Your task to perform on an android device: Search for "rayovac triple a" on walmart.com, select the first entry, add it to the cart, then select checkout. Image 0: 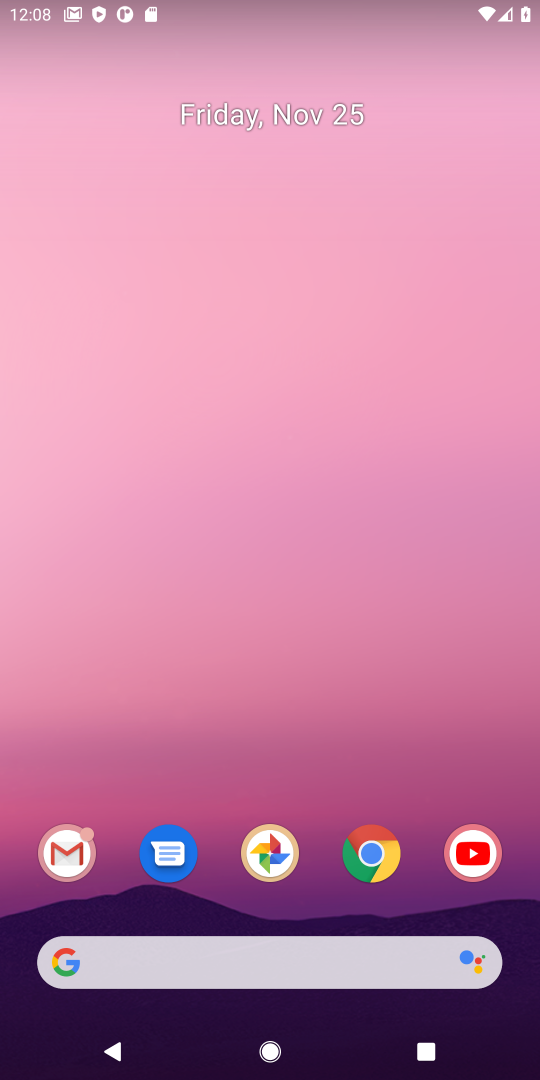
Step 0: click (206, 971)
Your task to perform on an android device: Search for "rayovac triple a" on walmart.com, select the first entry, add it to the cart, then select checkout. Image 1: 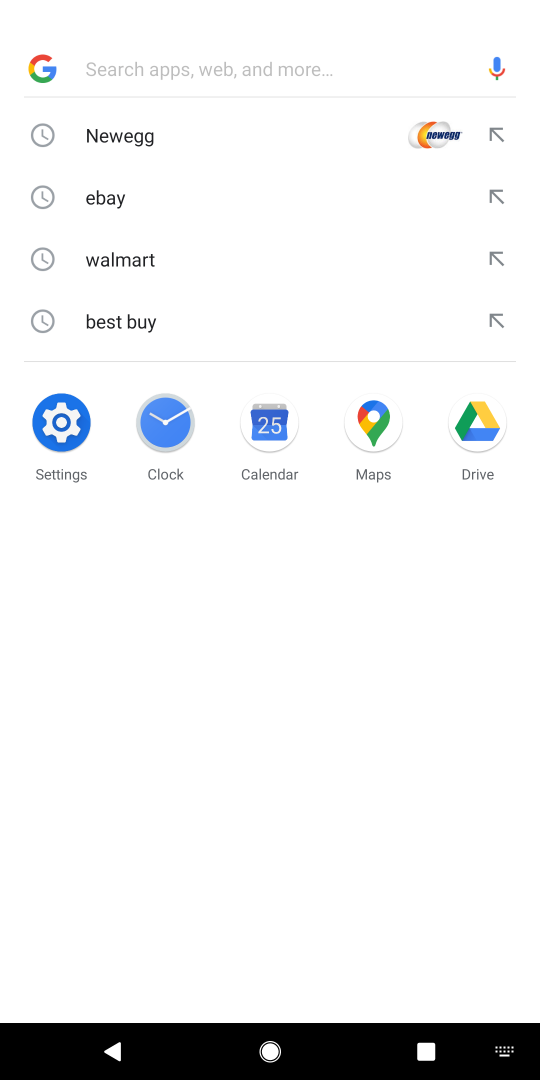
Step 1: type "walmart"
Your task to perform on an android device: Search for "rayovac triple a" on walmart.com, select the first entry, add it to the cart, then select checkout. Image 2: 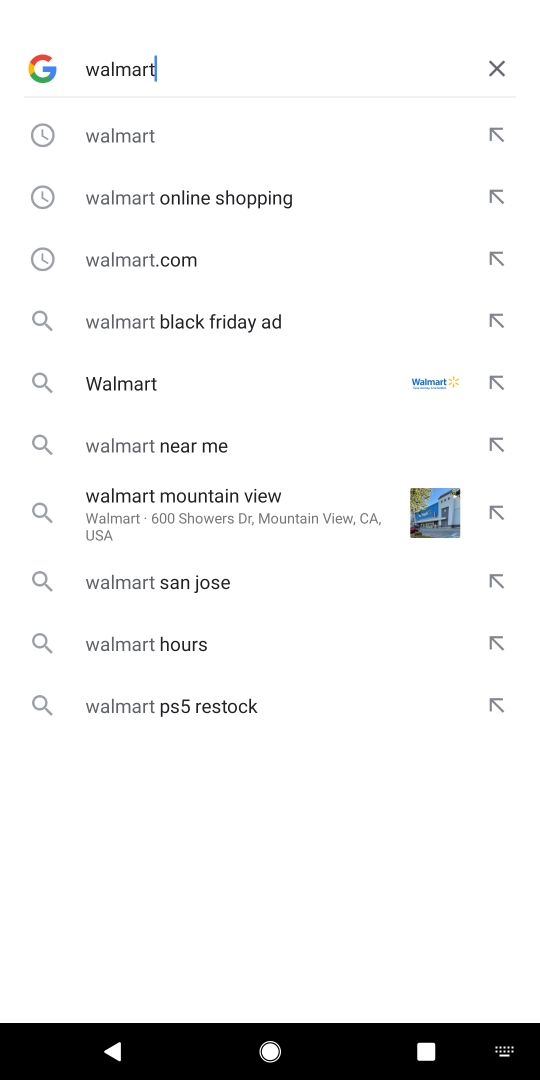
Step 2: click (167, 141)
Your task to perform on an android device: Search for "rayovac triple a" on walmart.com, select the first entry, add it to the cart, then select checkout. Image 3: 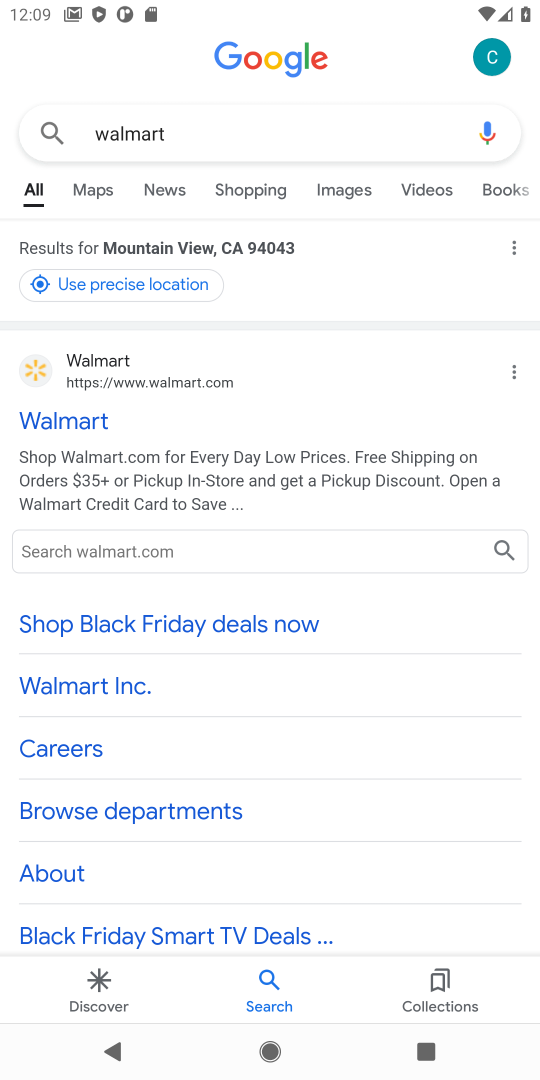
Step 3: click (58, 414)
Your task to perform on an android device: Search for "rayovac triple a" on walmart.com, select the first entry, add it to the cart, then select checkout. Image 4: 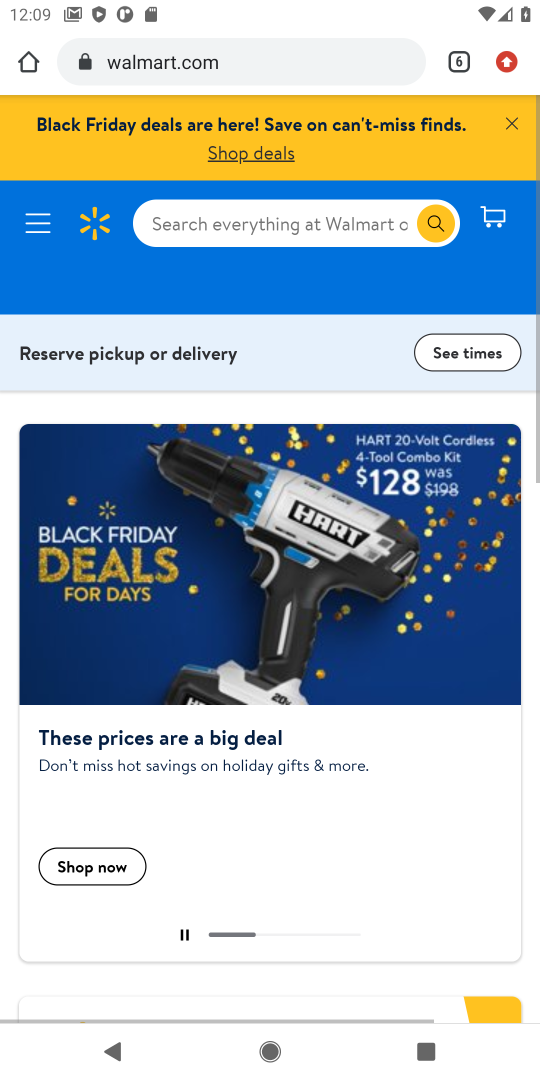
Step 4: click (512, 131)
Your task to perform on an android device: Search for "rayovac triple a" on walmart.com, select the first entry, add it to the cart, then select checkout. Image 5: 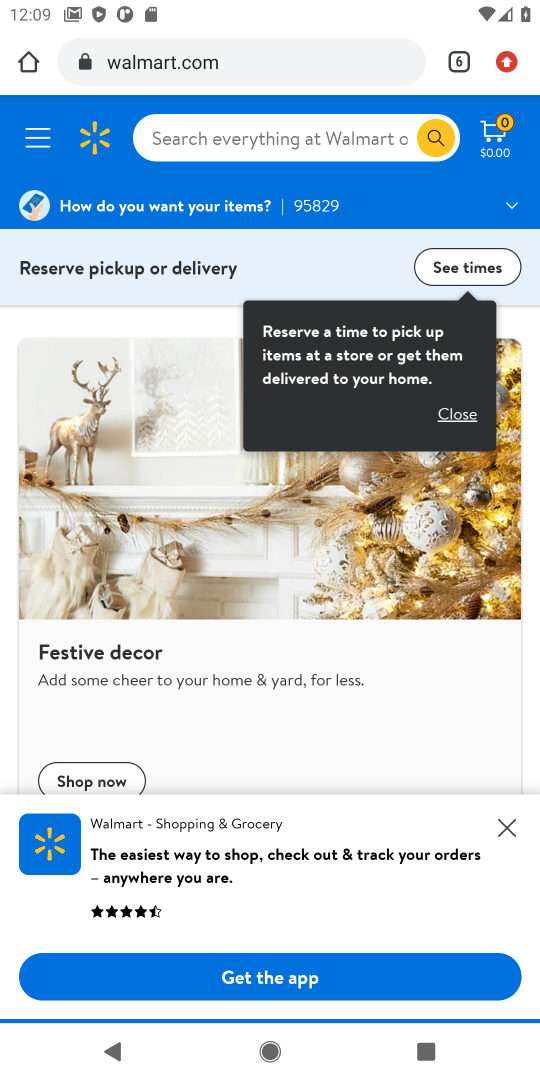
Step 5: click (199, 124)
Your task to perform on an android device: Search for "rayovac triple a" on walmart.com, select the first entry, add it to the cart, then select checkout. Image 6: 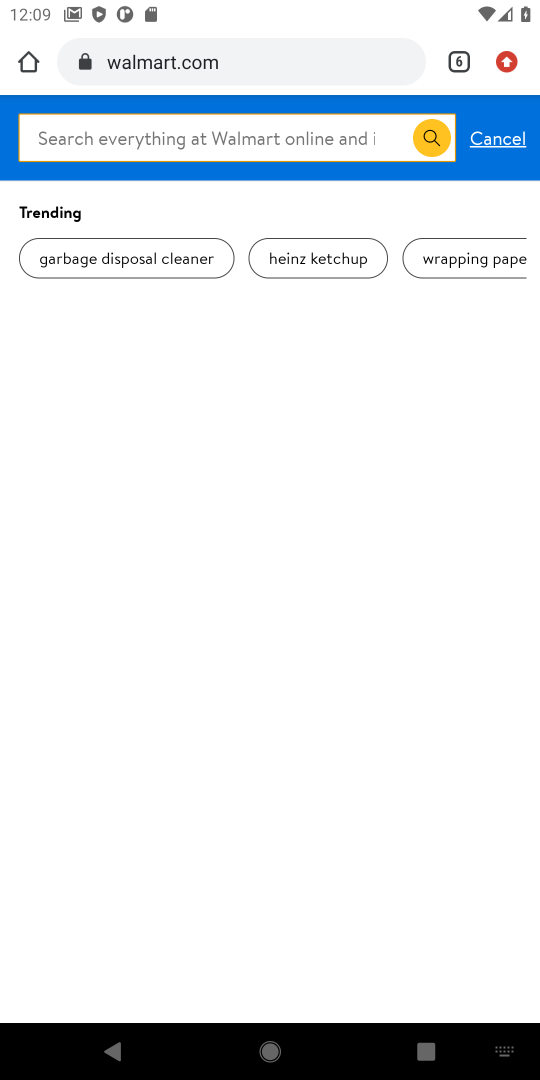
Step 6: type "rayovac triple a"
Your task to perform on an android device: Search for "rayovac triple a" on walmart.com, select the first entry, add it to the cart, then select checkout. Image 7: 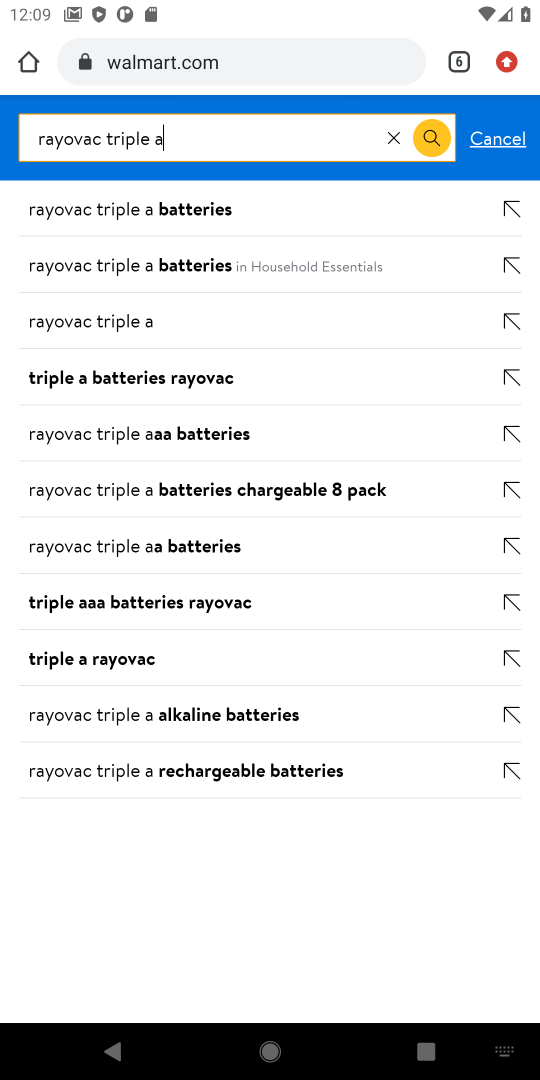
Step 7: click (124, 231)
Your task to perform on an android device: Search for "rayovac triple a" on walmart.com, select the first entry, add it to the cart, then select checkout. Image 8: 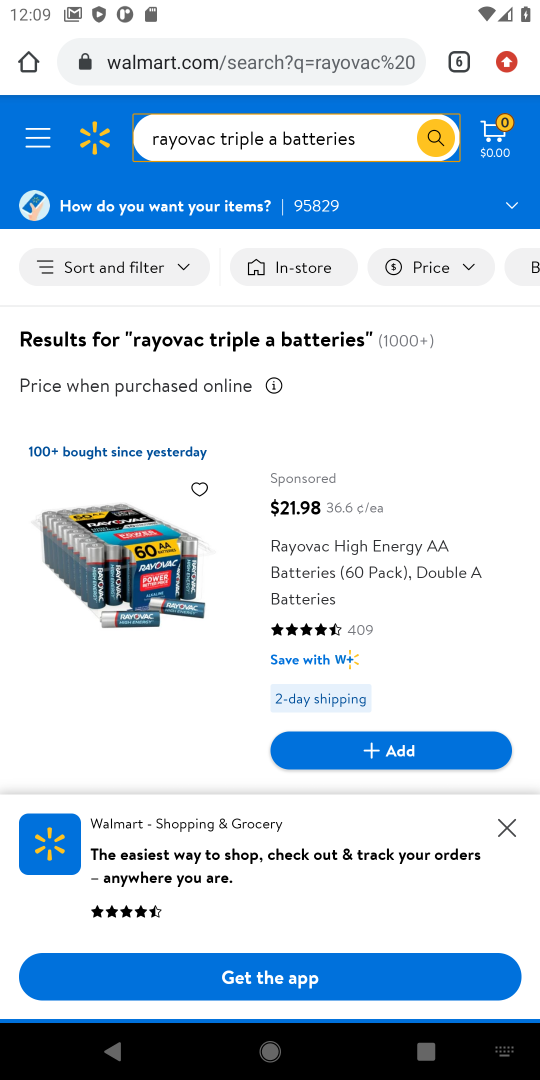
Step 8: click (414, 740)
Your task to perform on an android device: Search for "rayovac triple a" on walmart.com, select the first entry, add it to the cart, then select checkout. Image 9: 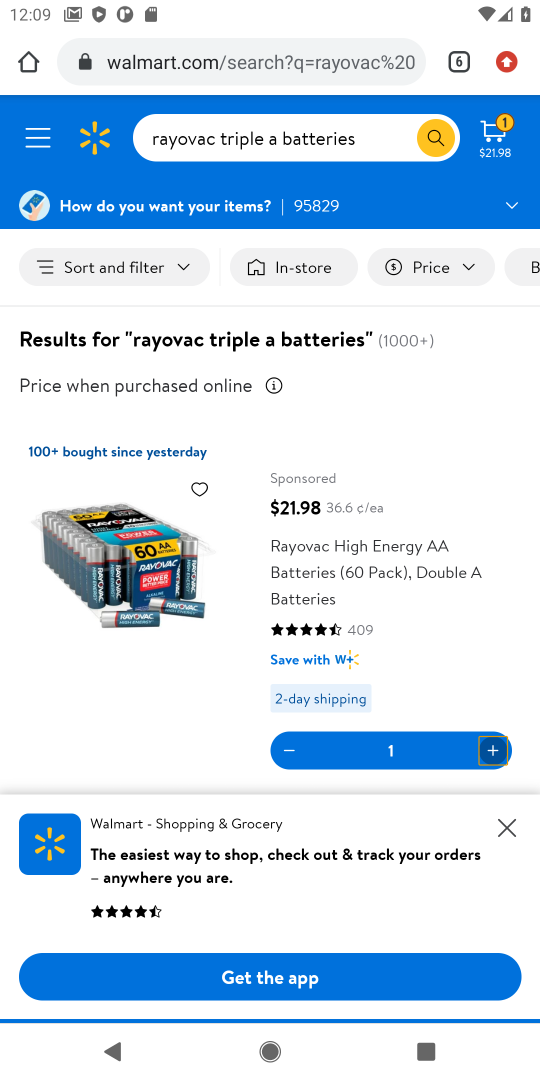
Step 9: task complete